Your task to perform on an android device: Go to calendar. Show me events next week Image 0: 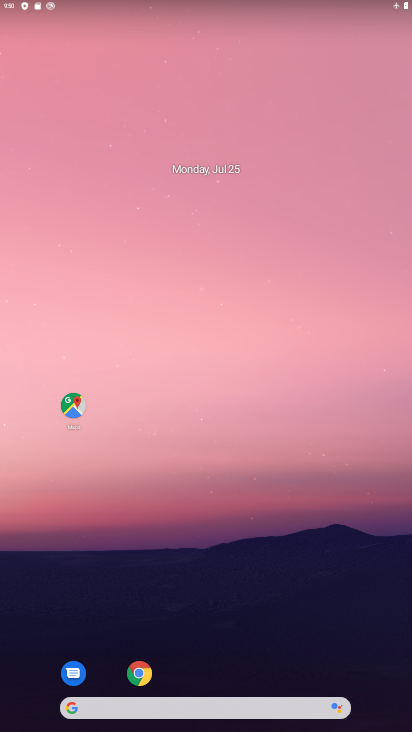
Step 0: drag from (268, 635) to (250, 42)
Your task to perform on an android device: Go to calendar. Show me events next week Image 1: 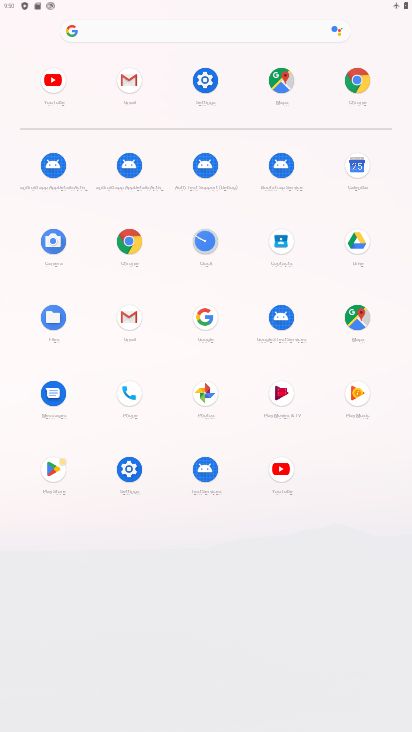
Step 1: click (351, 164)
Your task to perform on an android device: Go to calendar. Show me events next week Image 2: 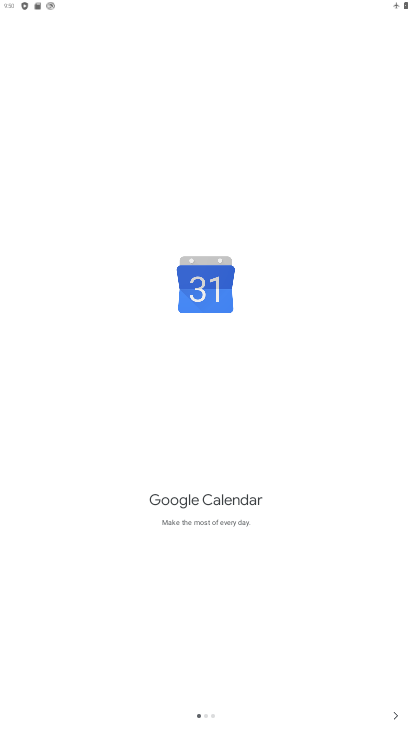
Step 2: click (391, 707)
Your task to perform on an android device: Go to calendar. Show me events next week Image 3: 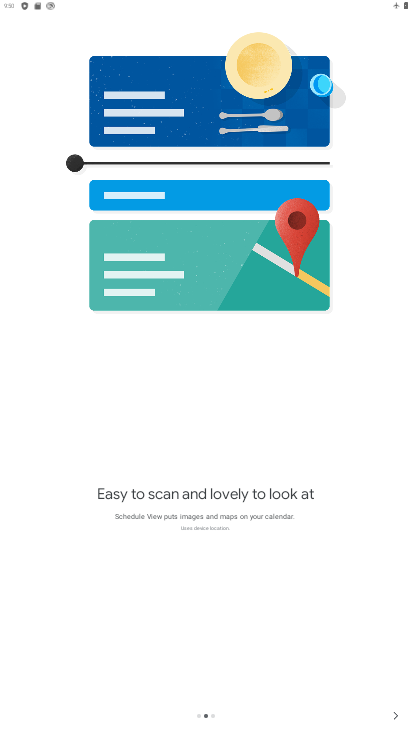
Step 3: click (391, 707)
Your task to perform on an android device: Go to calendar. Show me events next week Image 4: 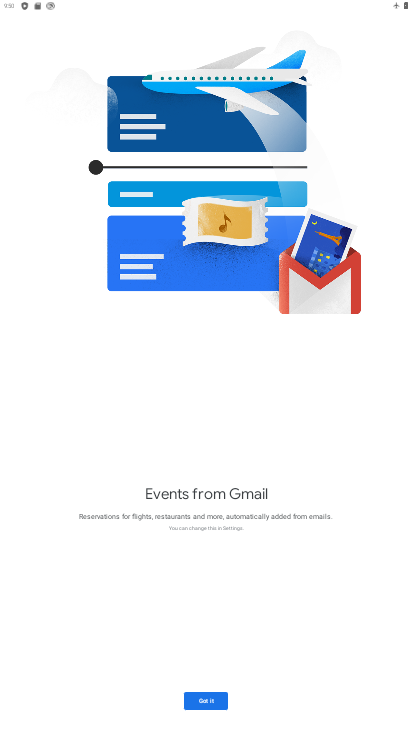
Step 4: click (198, 698)
Your task to perform on an android device: Go to calendar. Show me events next week Image 5: 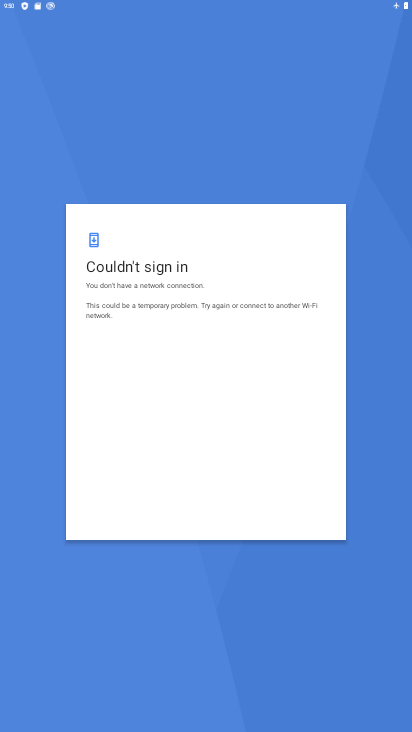
Step 5: task complete